Your task to perform on an android device: change keyboard looks Image 0: 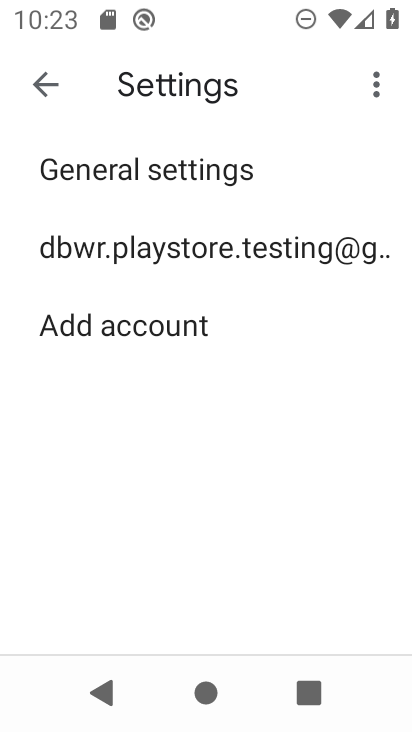
Step 0: press home button
Your task to perform on an android device: change keyboard looks Image 1: 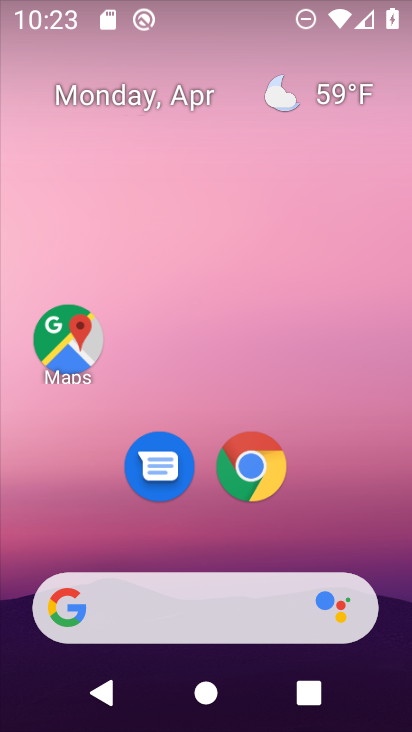
Step 1: drag from (202, 448) to (249, 9)
Your task to perform on an android device: change keyboard looks Image 2: 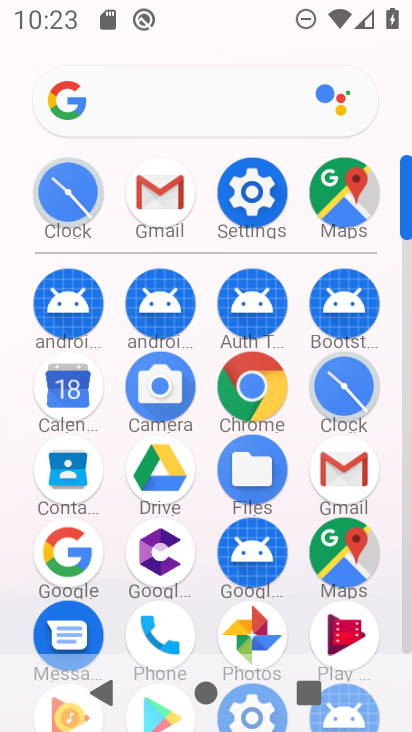
Step 2: click (261, 182)
Your task to perform on an android device: change keyboard looks Image 3: 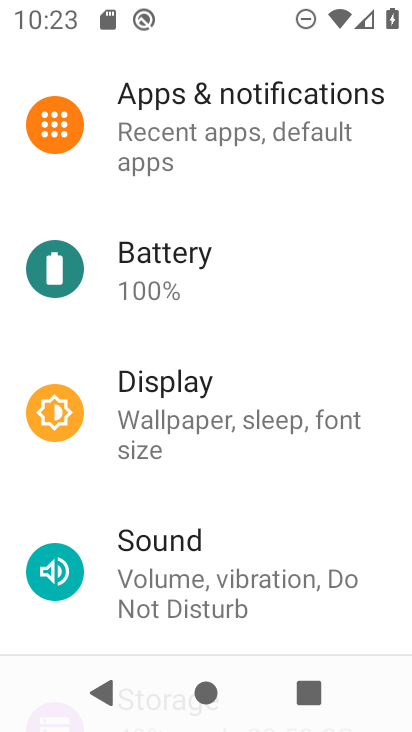
Step 3: drag from (199, 582) to (266, 76)
Your task to perform on an android device: change keyboard looks Image 4: 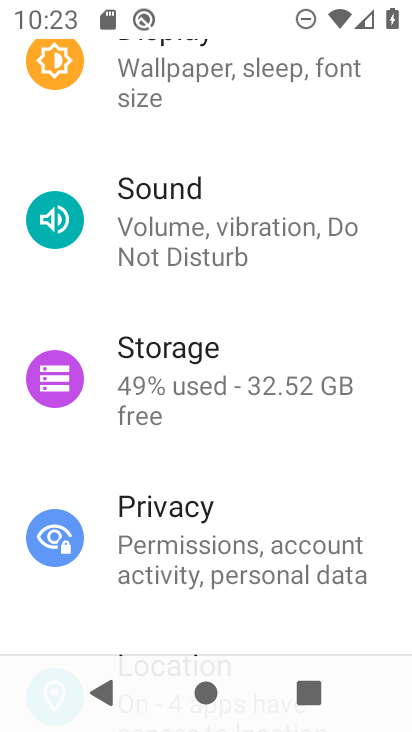
Step 4: drag from (210, 430) to (280, 2)
Your task to perform on an android device: change keyboard looks Image 5: 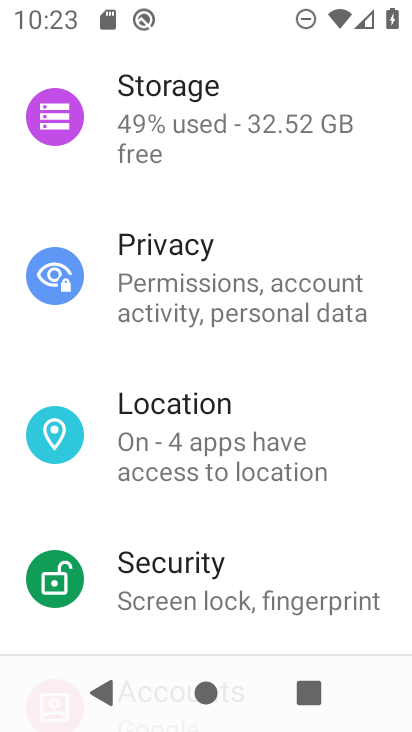
Step 5: drag from (189, 547) to (290, 39)
Your task to perform on an android device: change keyboard looks Image 6: 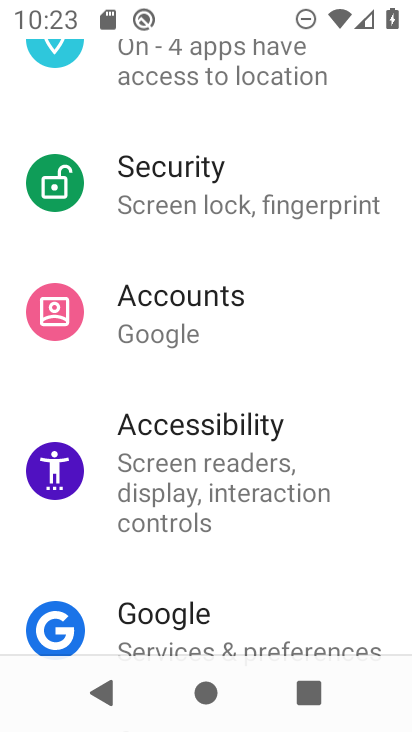
Step 6: drag from (242, 503) to (298, 4)
Your task to perform on an android device: change keyboard looks Image 7: 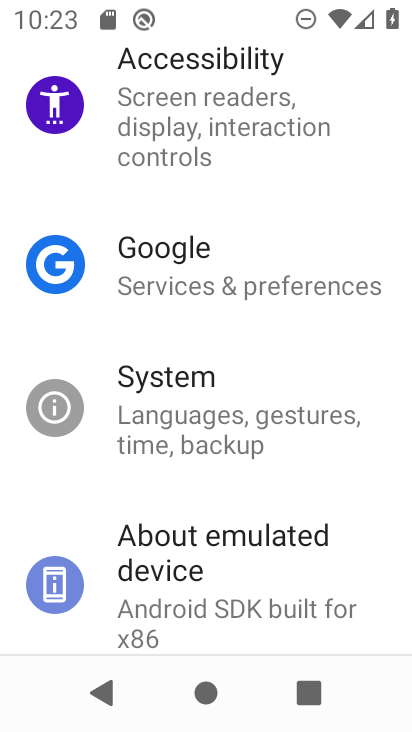
Step 7: drag from (250, 507) to (306, 1)
Your task to perform on an android device: change keyboard looks Image 8: 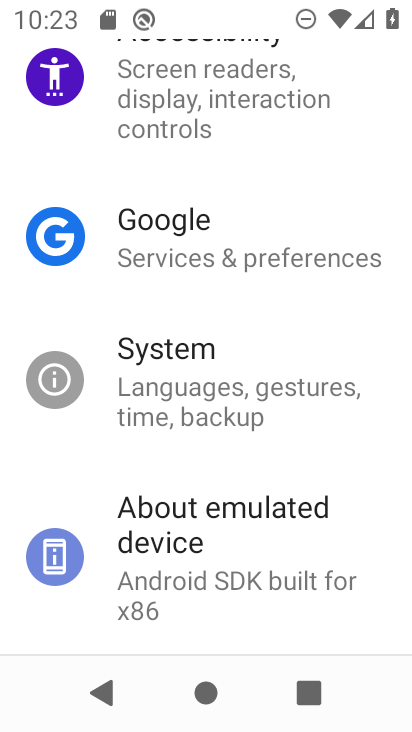
Step 8: click (178, 390)
Your task to perform on an android device: change keyboard looks Image 9: 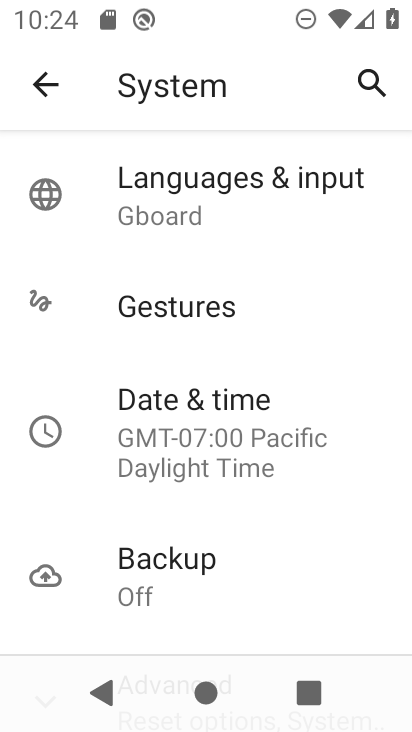
Step 9: click (206, 202)
Your task to perform on an android device: change keyboard looks Image 10: 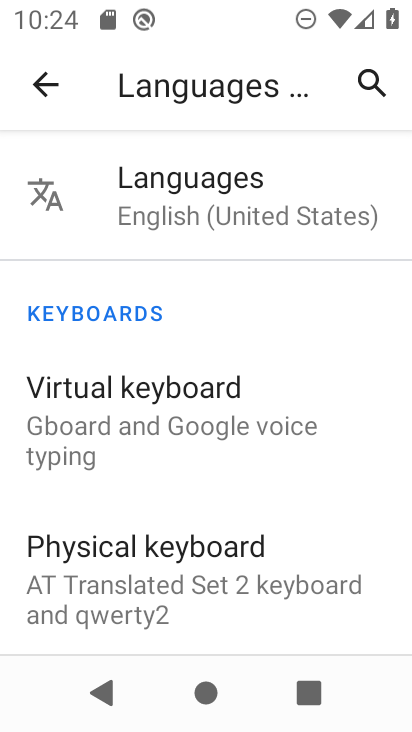
Step 10: click (169, 423)
Your task to perform on an android device: change keyboard looks Image 11: 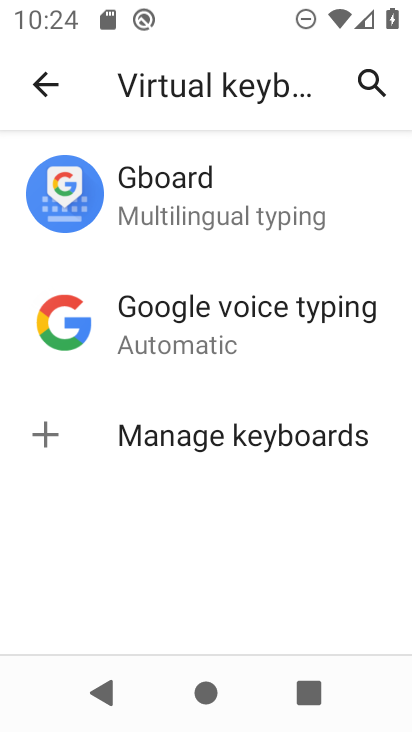
Step 11: click (199, 188)
Your task to perform on an android device: change keyboard looks Image 12: 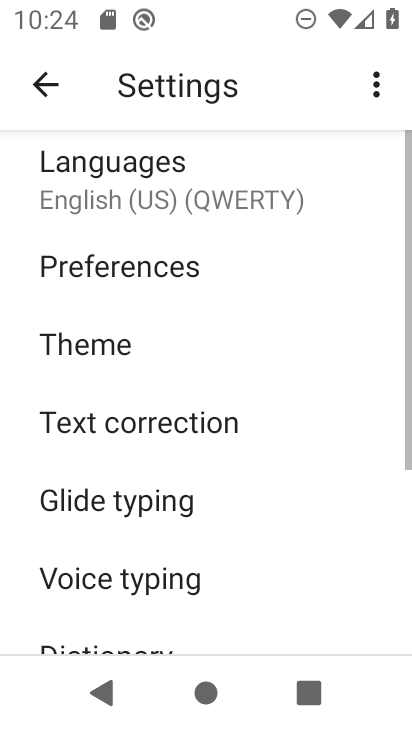
Step 12: click (121, 341)
Your task to perform on an android device: change keyboard looks Image 13: 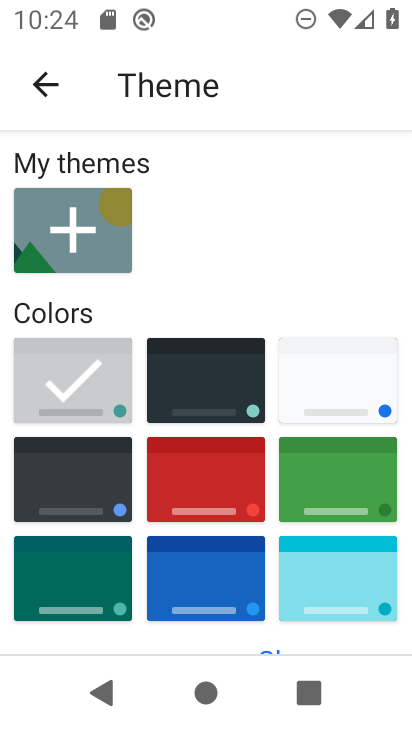
Step 13: click (218, 496)
Your task to perform on an android device: change keyboard looks Image 14: 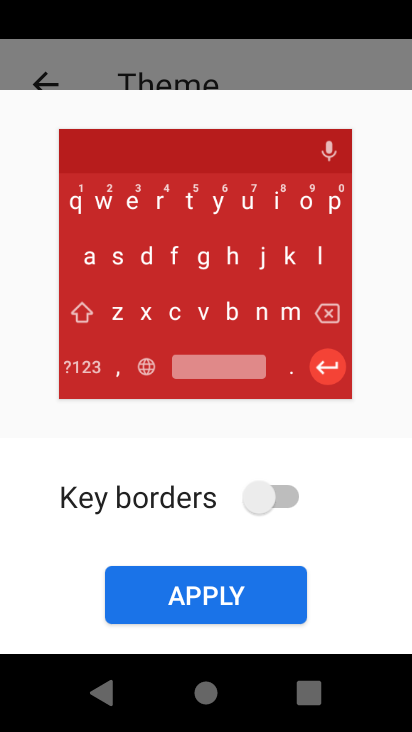
Step 14: click (236, 591)
Your task to perform on an android device: change keyboard looks Image 15: 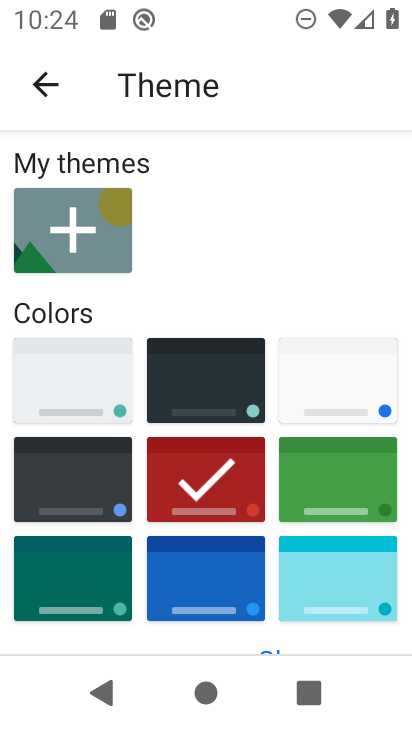
Step 15: task complete